Your task to perform on an android device: Play the last video I watched on Youtube Image 0: 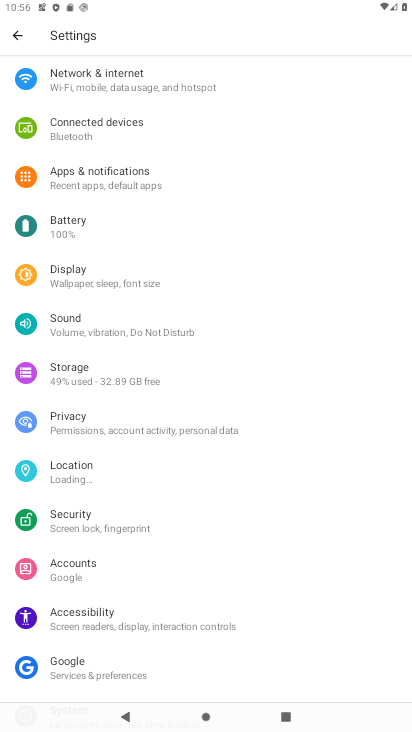
Step 0: press home button
Your task to perform on an android device: Play the last video I watched on Youtube Image 1: 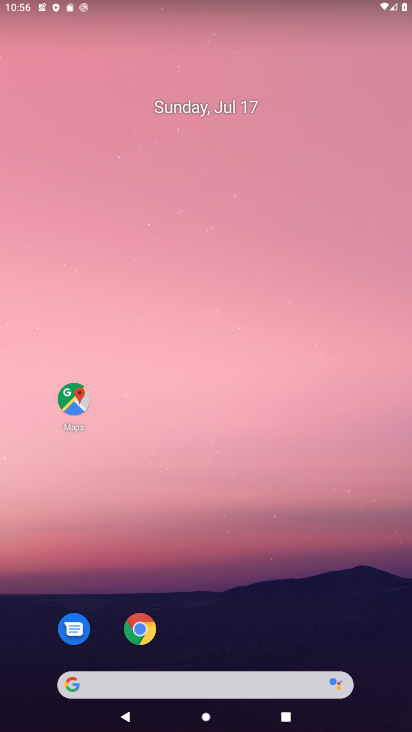
Step 1: drag from (311, 603) to (342, 62)
Your task to perform on an android device: Play the last video I watched on Youtube Image 2: 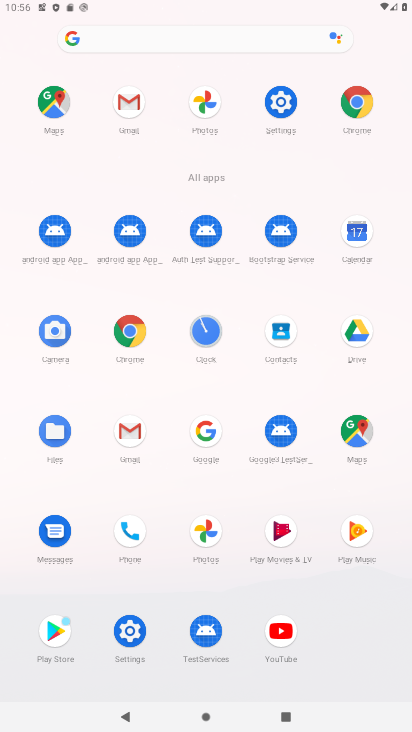
Step 2: click (281, 630)
Your task to perform on an android device: Play the last video I watched on Youtube Image 3: 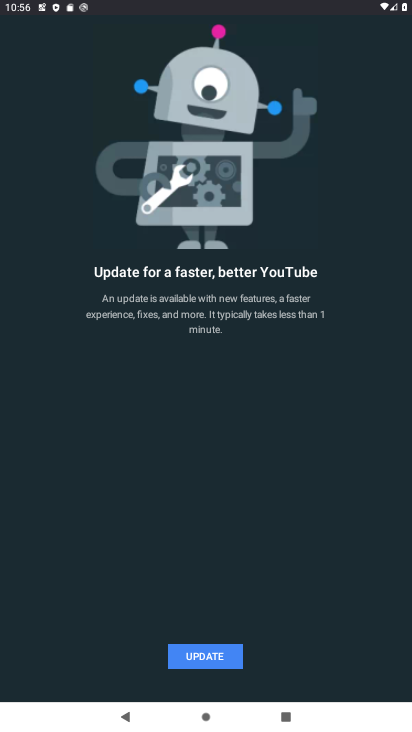
Step 3: click (207, 657)
Your task to perform on an android device: Play the last video I watched on Youtube Image 4: 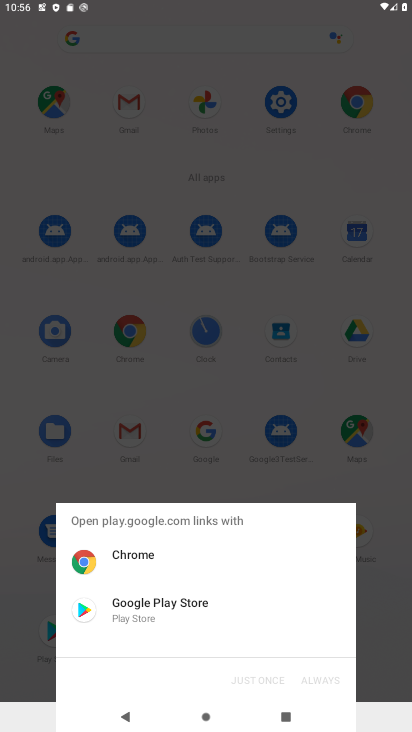
Step 4: click (169, 624)
Your task to perform on an android device: Play the last video I watched on Youtube Image 5: 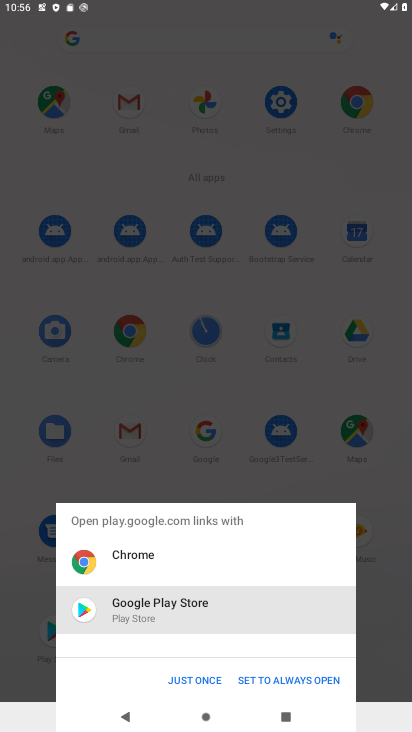
Step 5: click (201, 683)
Your task to perform on an android device: Play the last video I watched on Youtube Image 6: 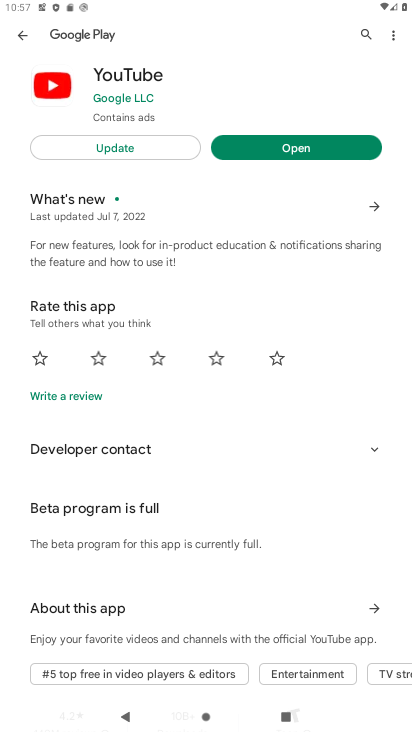
Step 6: click (172, 156)
Your task to perform on an android device: Play the last video I watched on Youtube Image 7: 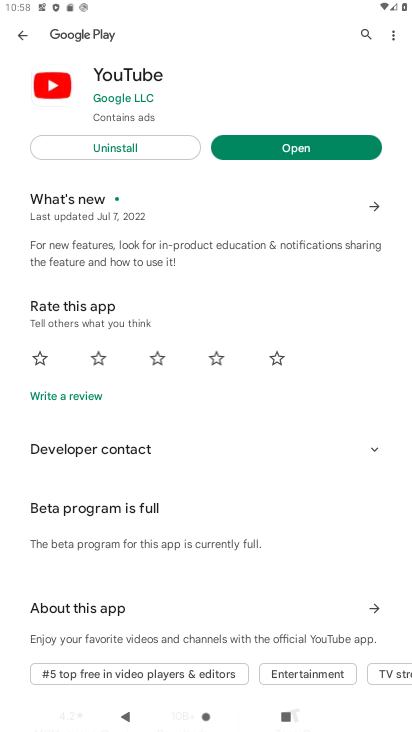
Step 7: click (316, 144)
Your task to perform on an android device: Play the last video I watched on Youtube Image 8: 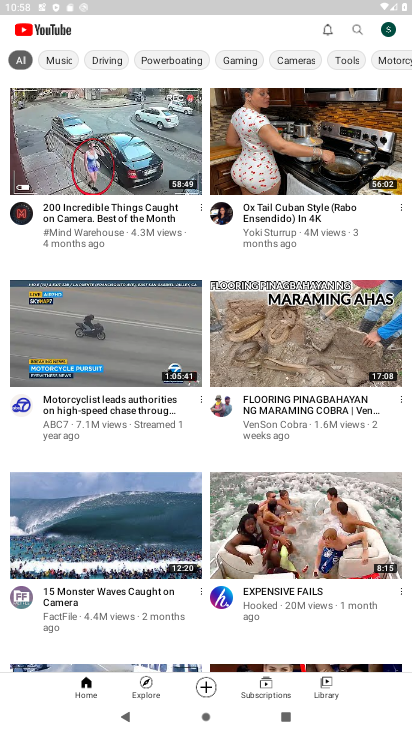
Step 8: click (320, 687)
Your task to perform on an android device: Play the last video I watched on Youtube Image 9: 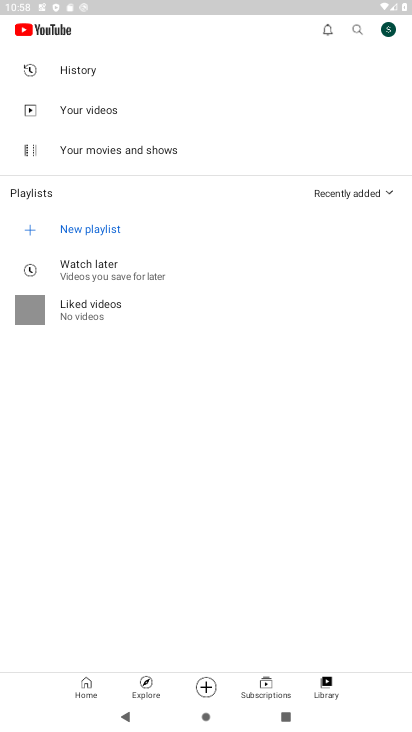
Step 9: click (77, 74)
Your task to perform on an android device: Play the last video I watched on Youtube Image 10: 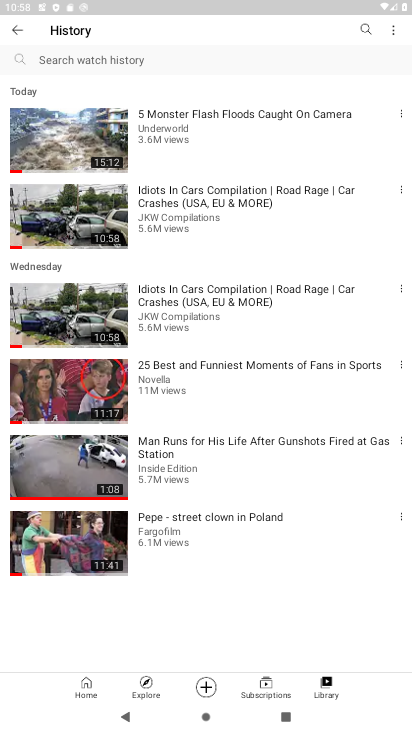
Step 10: click (61, 128)
Your task to perform on an android device: Play the last video I watched on Youtube Image 11: 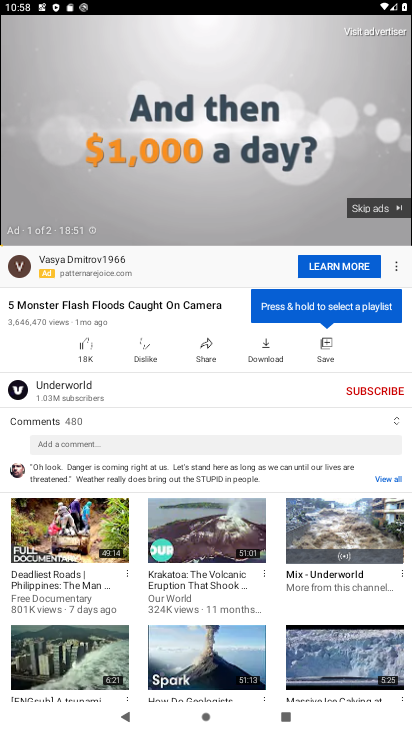
Step 11: task complete